Your task to perform on an android device: What's the news about the US dollar exchange rate? Image 0: 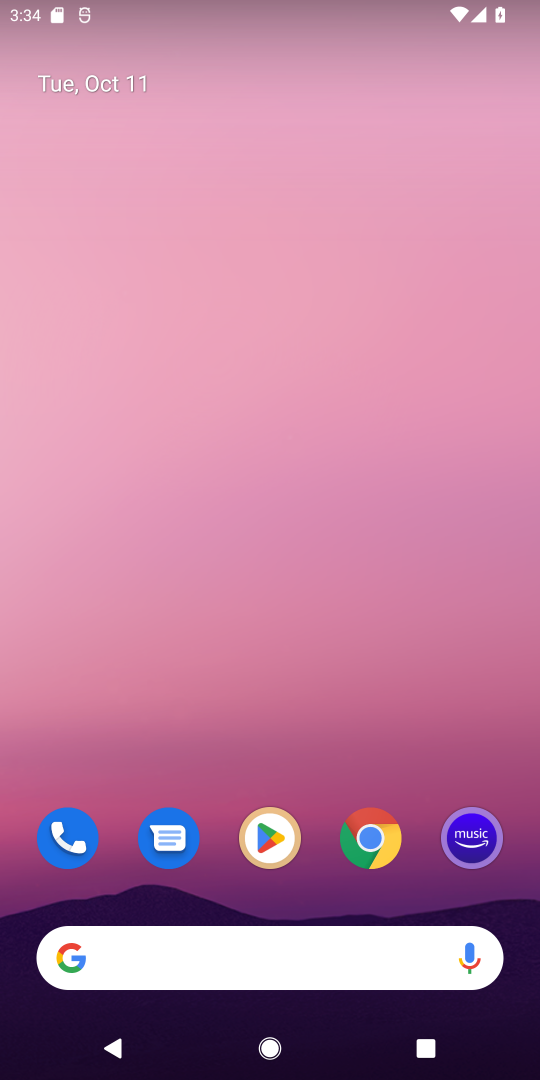
Step 0: click (370, 819)
Your task to perform on an android device: What's the news about the US dollar exchange rate? Image 1: 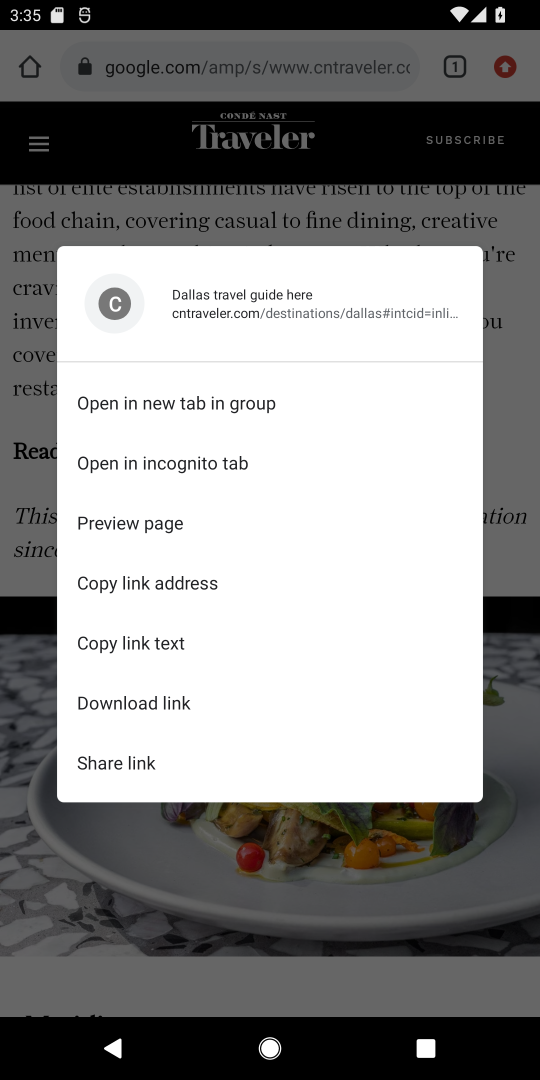
Step 1: click (272, 68)
Your task to perform on an android device: What's the news about the US dollar exchange rate? Image 2: 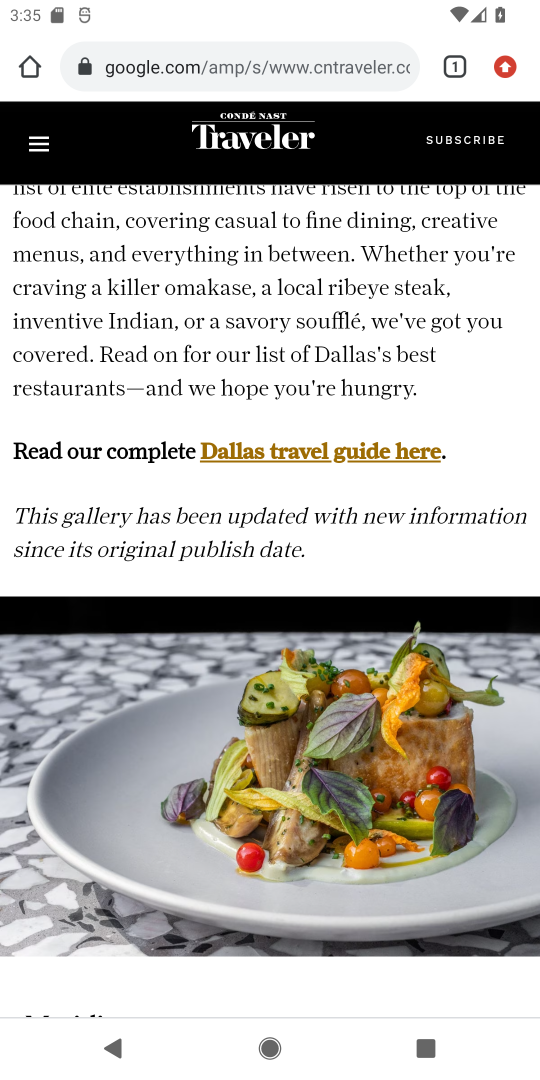
Step 2: click (219, 60)
Your task to perform on an android device: What's the news about the US dollar exchange rate? Image 3: 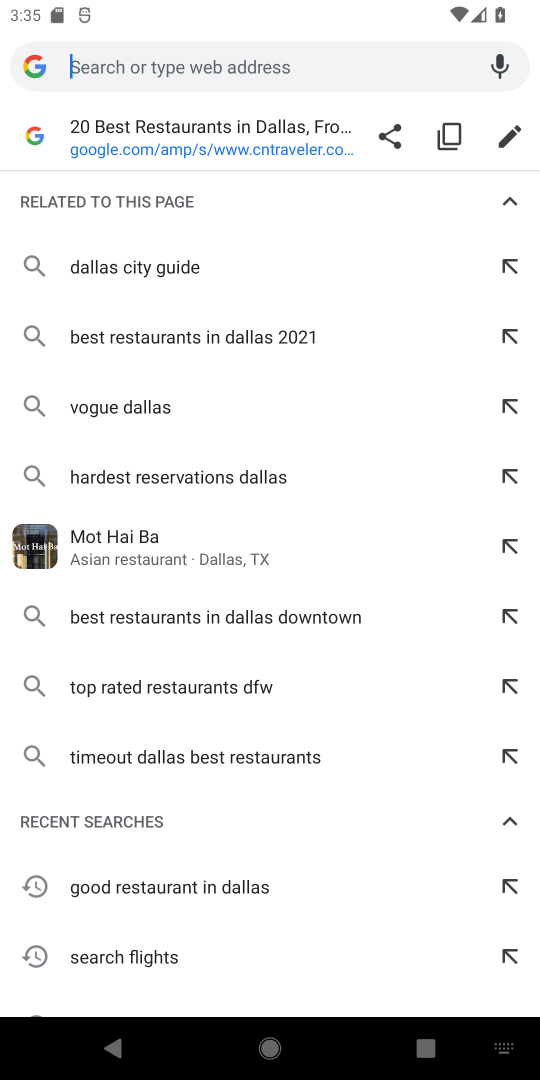
Step 3: type "news about the us dollar exchange rate"
Your task to perform on an android device: What's the news about the US dollar exchange rate? Image 4: 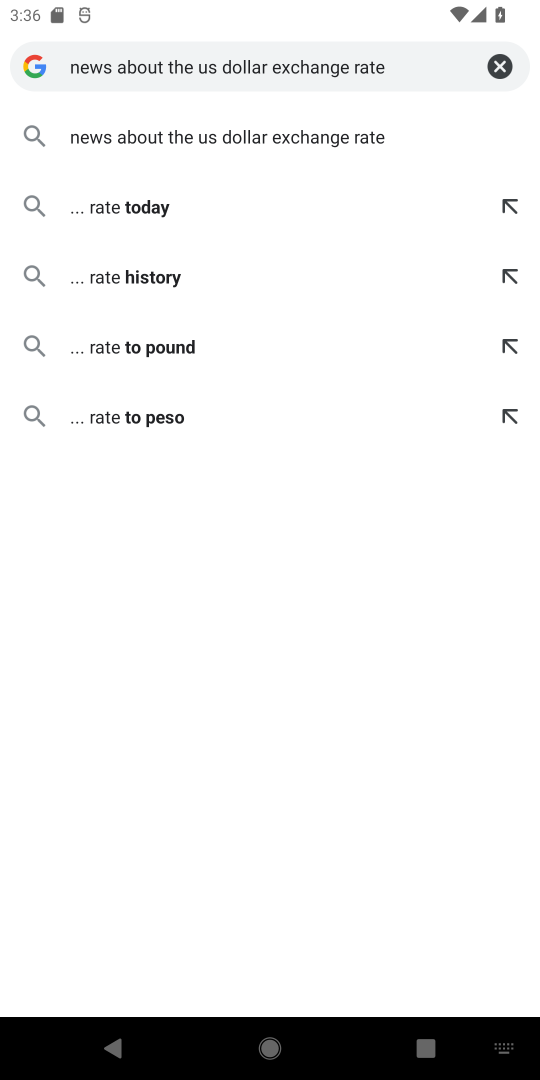
Step 4: click (343, 134)
Your task to perform on an android device: What's the news about the US dollar exchange rate? Image 5: 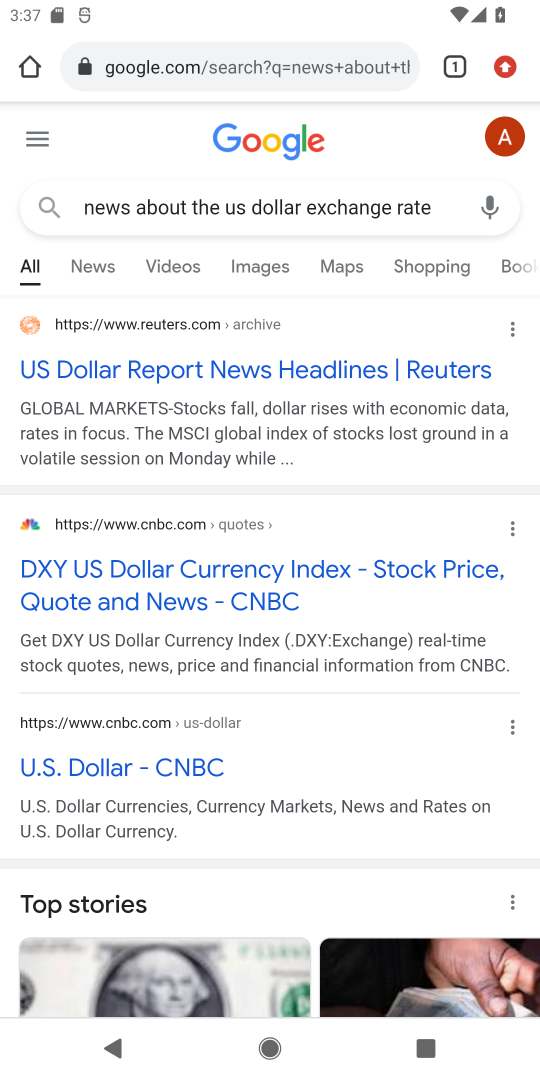
Step 5: drag from (383, 877) to (475, 425)
Your task to perform on an android device: What's the news about the US dollar exchange rate? Image 6: 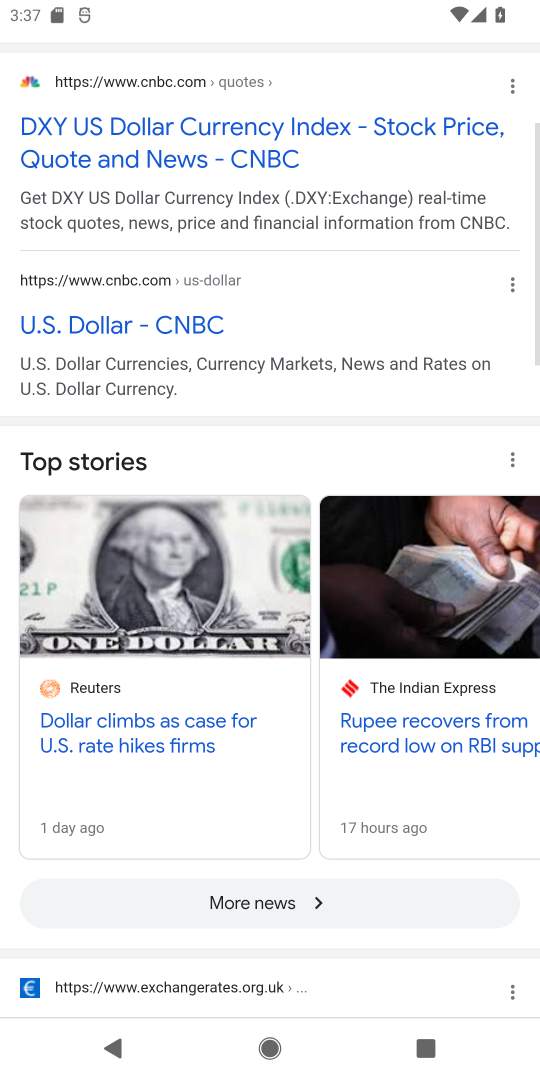
Step 6: drag from (322, 815) to (425, 427)
Your task to perform on an android device: What's the news about the US dollar exchange rate? Image 7: 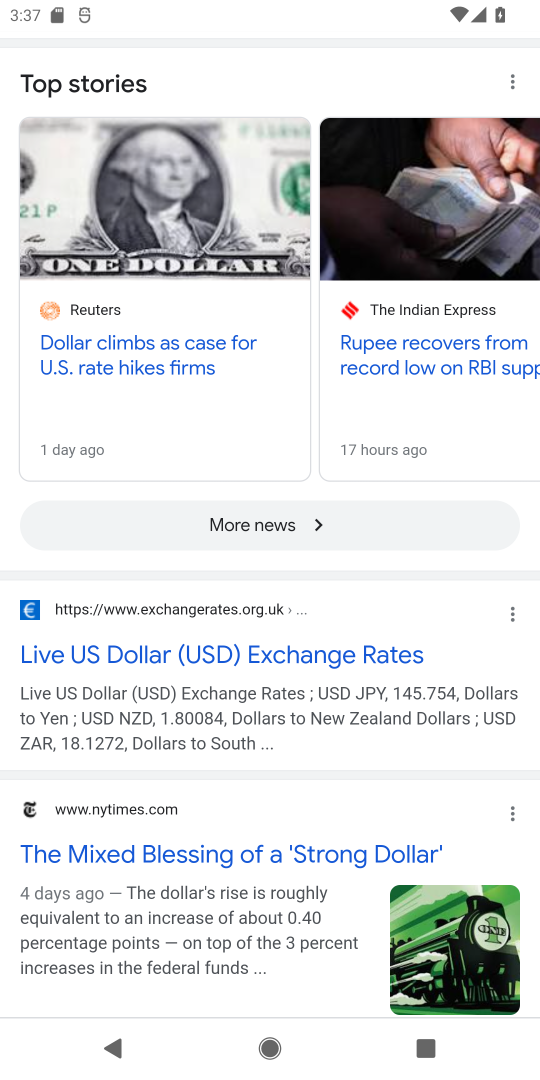
Step 7: drag from (239, 566) to (265, 310)
Your task to perform on an android device: What's the news about the US dollar exchange rate? Image 8: 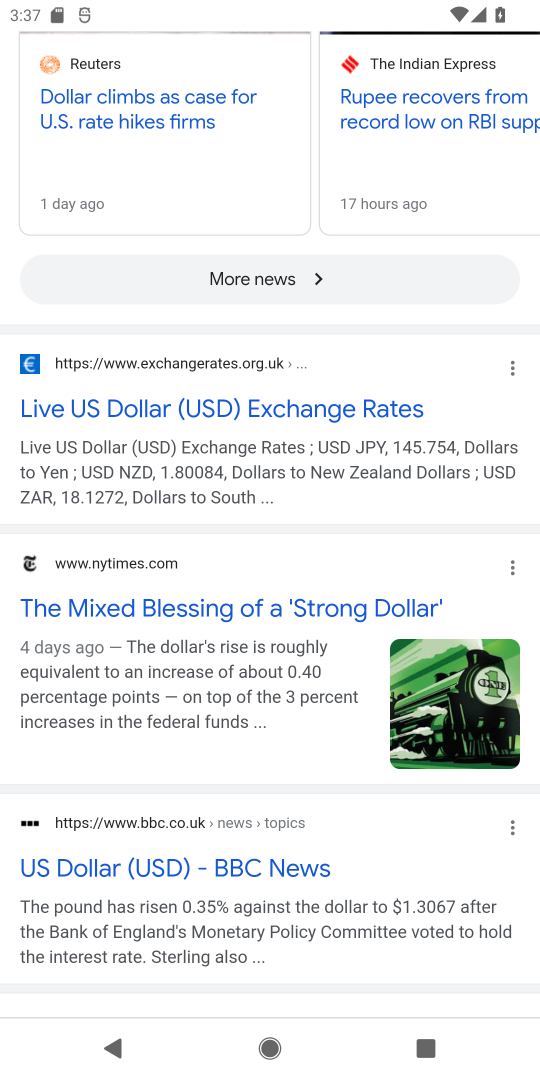
Step 8: click (103, 401)
Your task to perform on an android device: What's the news about the US dollar exchange rate? Image 9: 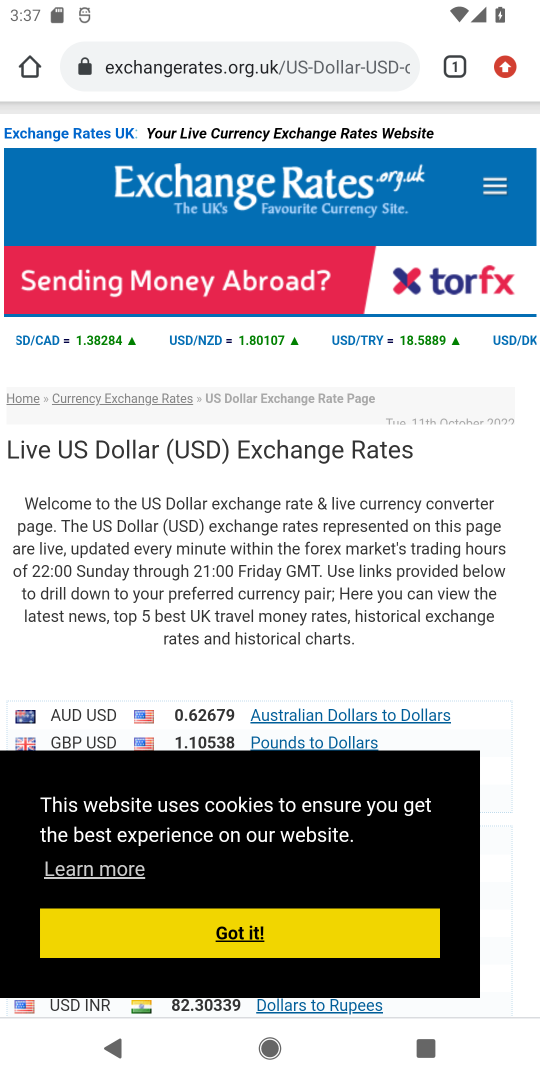
Step 9: drag from (482, 589) to (466, 380)
Your task to perform on an android device: What's the news about the US dollar exchange rate? Image 10: 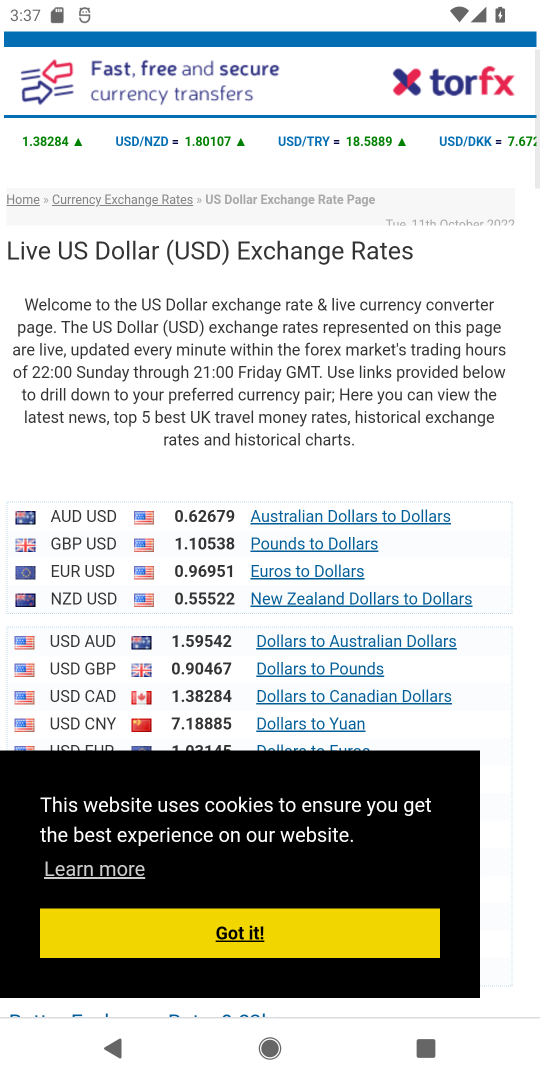
Step 10: drag from (439, 613) to (474, 348)
Your task to perform on an android device: What's the news about the US dollar exchange rate? Image 11: 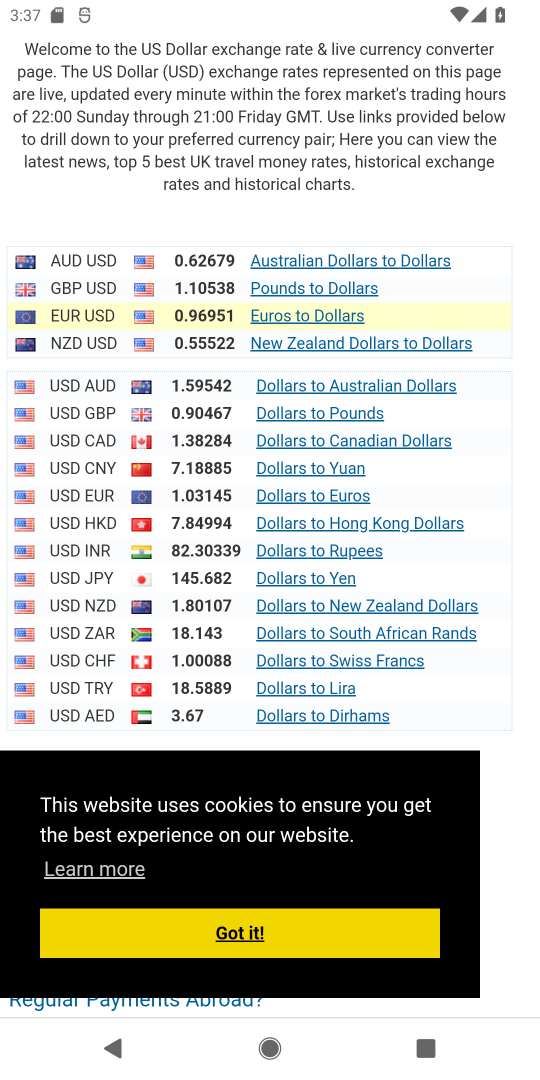
Step 11: drag from (408, 656) to (412, 362)
Your task to perform on an android device: What's the news about the US dollar exchange rate? Image 12: 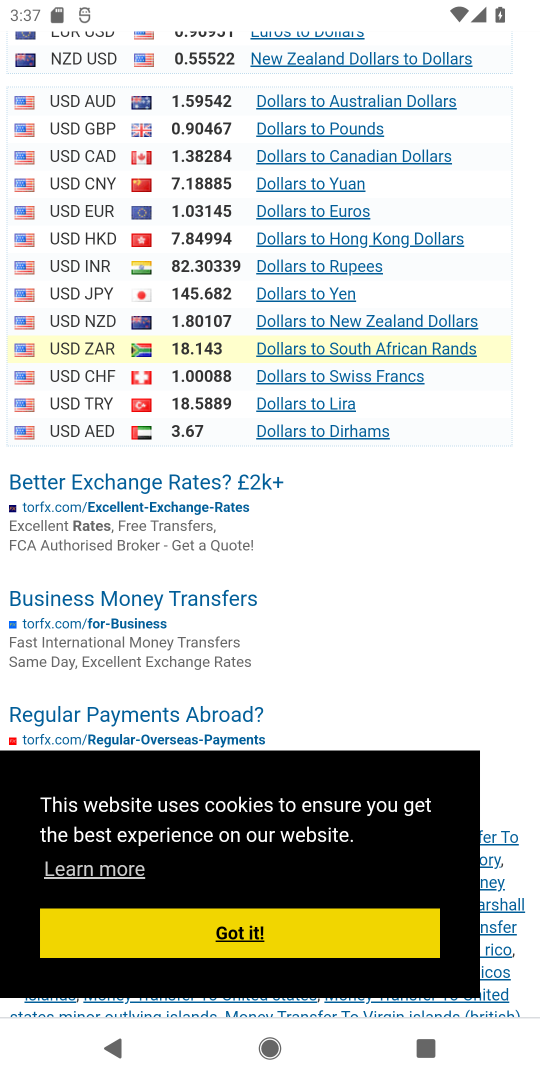
Step 12: drag from (313, 539) to (333, 422)
Your task to perform on an android device: What's the news about the US dollar exchange rate? Image 13: 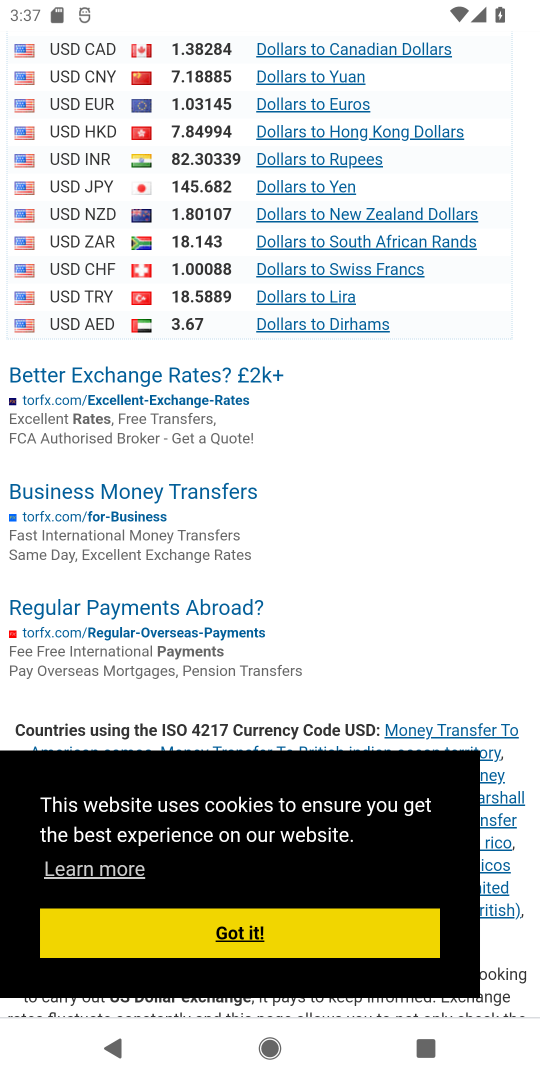
Step 13: drag from (317, 631) to (330, 309)
Your task to perform on an android device: What's the news about the US dollar exchange rate? Image 14: 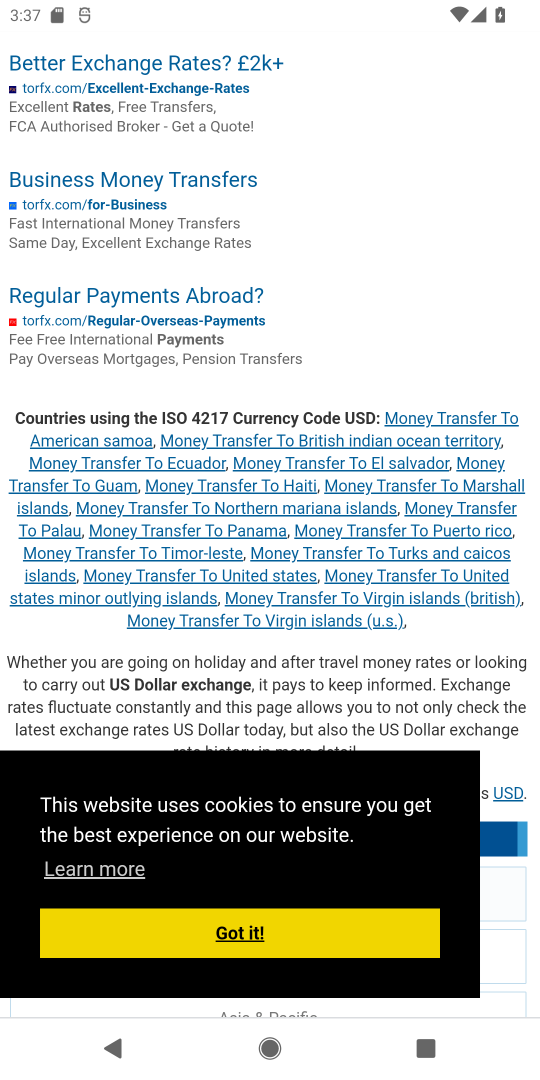
Step 14: drag from (277, 579) to (287, 281)
Your task to perform on an android device: What's the news about the US dollar exchange rate? Image 15: 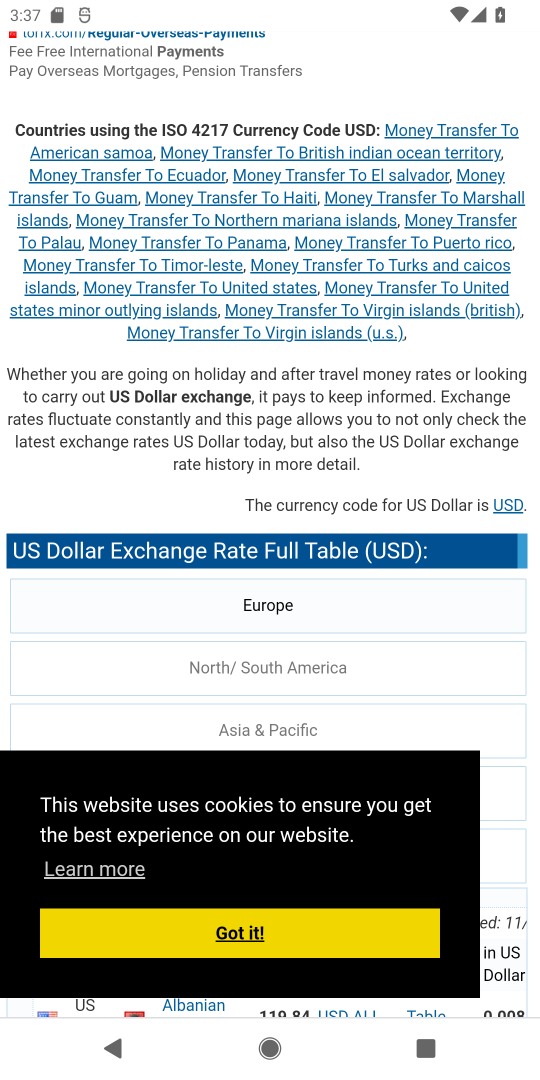
Step 15: click (233, 938)
Your task to perform on an android device: What's the news about the US dollar exchange rate? Image 16: 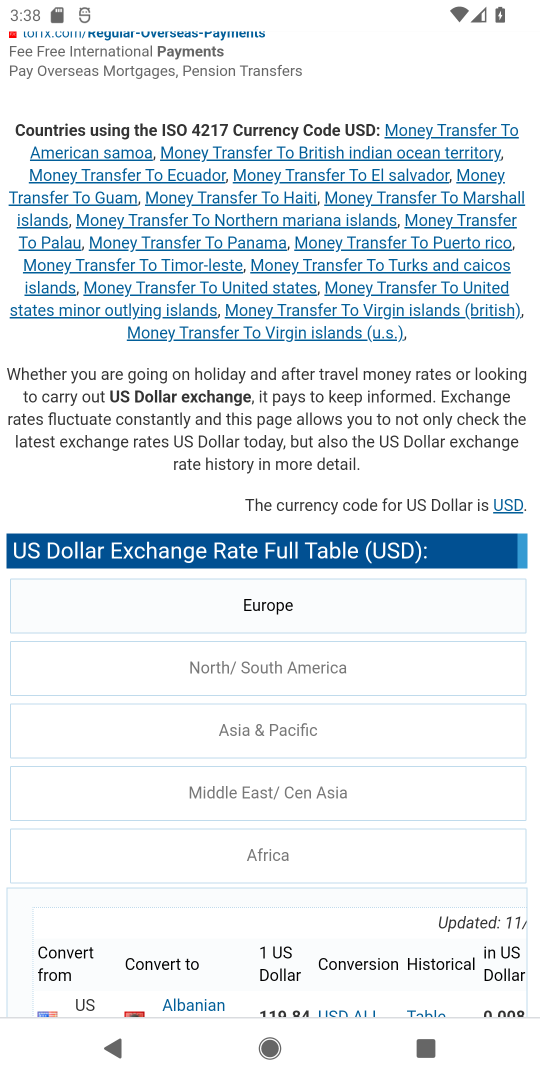
Step 16: task complete